Your task to perform on an android device: Open ESPN.com Image 0: 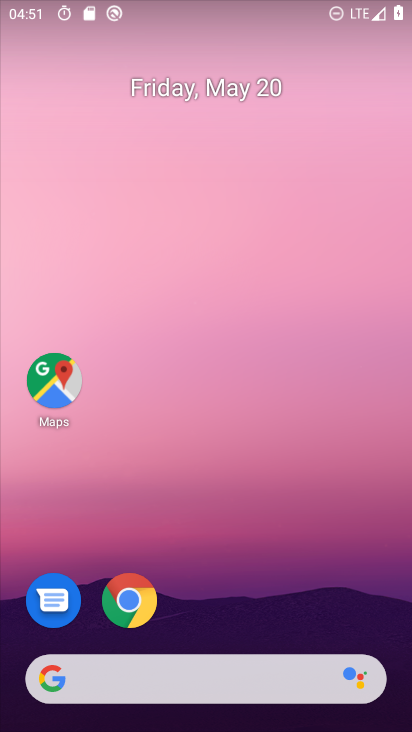
Step 0: click (131, 601)
Your task to perform on an android device: Open ESPN.com Image 1: 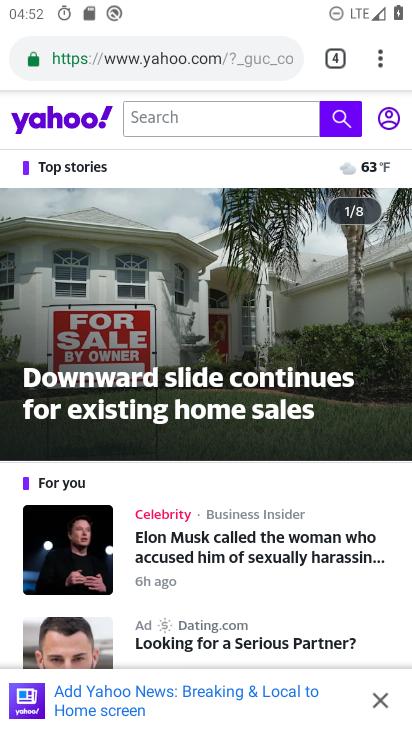
Step 1: click (331, 56)
Your task to perform on an android device: Open ESPN.com Image 2: 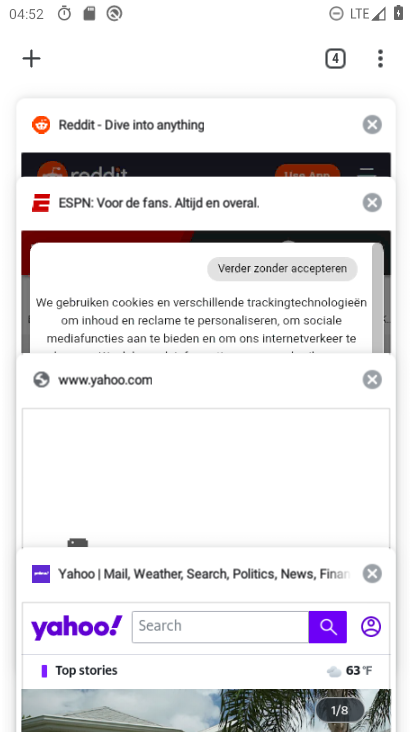
Step 2: click (74, 236)
Your task to perform on an android device: Open ESPN.com Image 3: 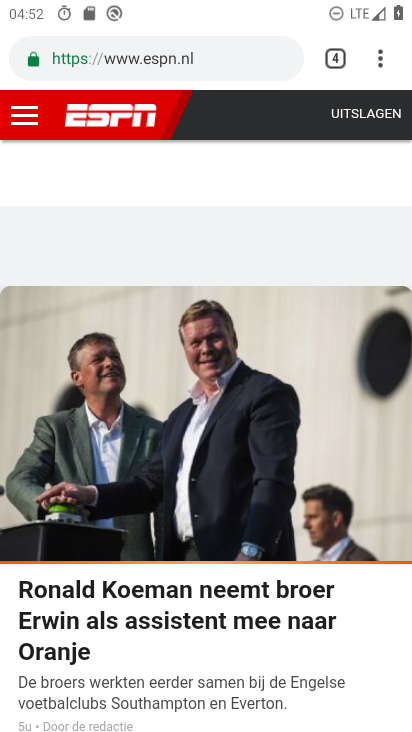
Step 3: task complete